Your task to perform on an android device: set an alarm Image 0: 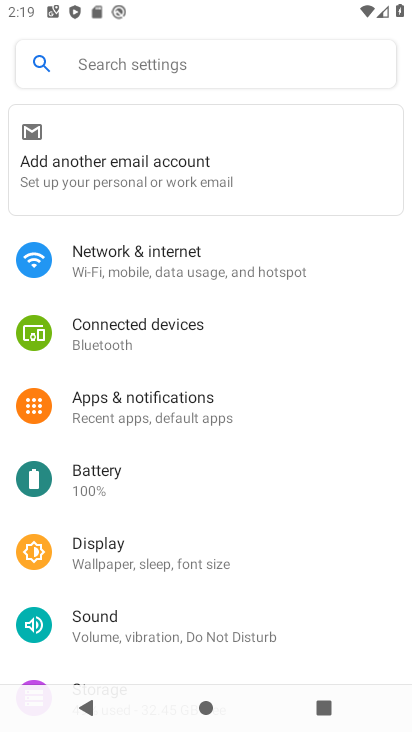
Step 0: press home button
Your task to perform on an android device: set an alarm Image 1: 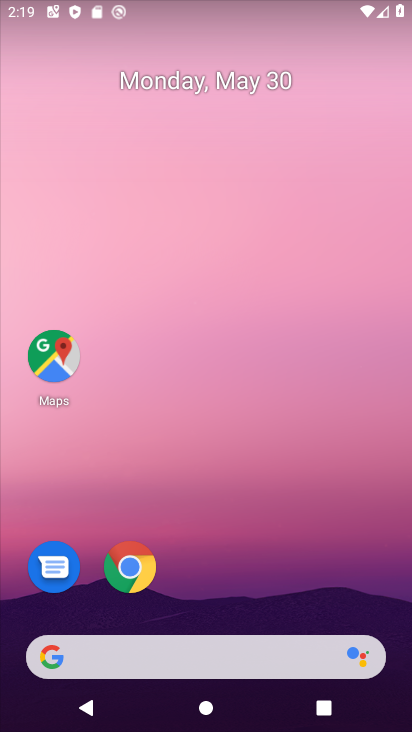
Step 1: drag from (214, 402) to (249, 142)
Your task to perform on an android device: set an alarm Image 2: 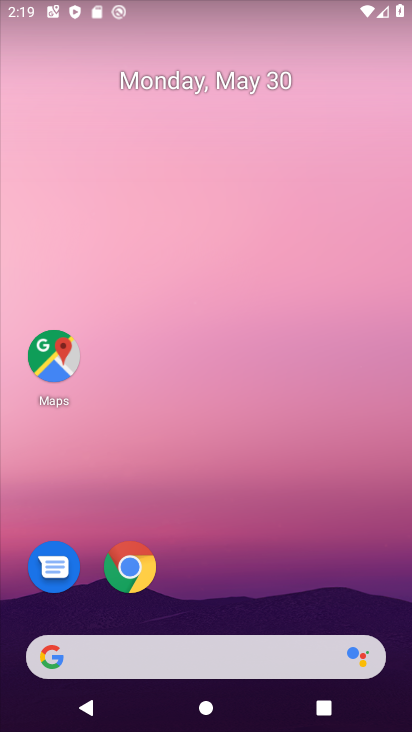
Step 2: drag from (229, 622) to (251, 13)
Your task to perform on an android device: set an alarm Image 3: 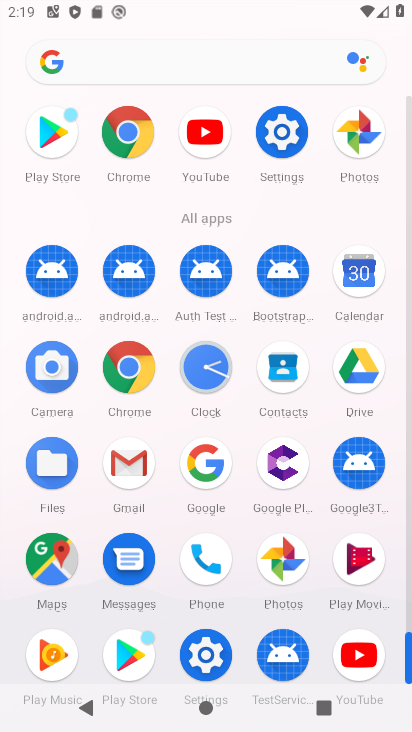
Step 3: click (210, 369)
Your task to perform on an android device: set an alarm Image 4: 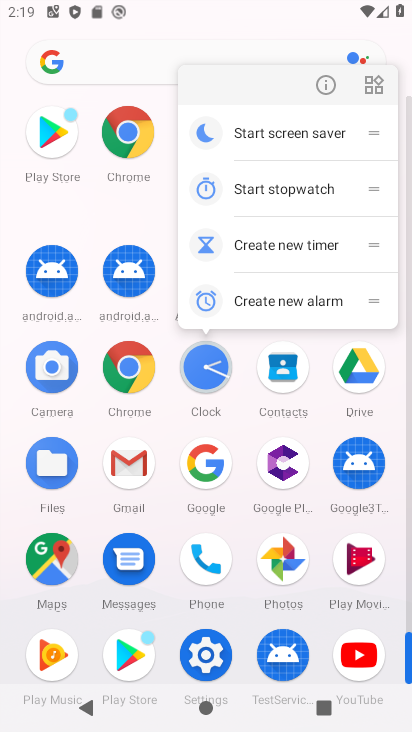
Step 4: click (194, 377)
Your task to perform on an android device: set an alarm Image 5: 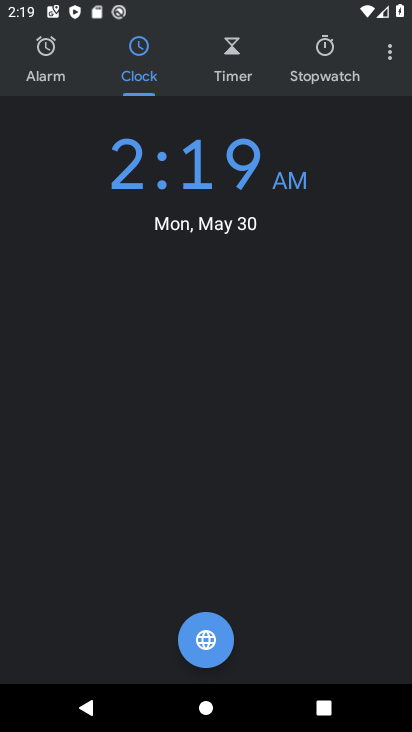
Step 5: click (57, 70)
Your task to perform on an android device: set an alarm Image 6: 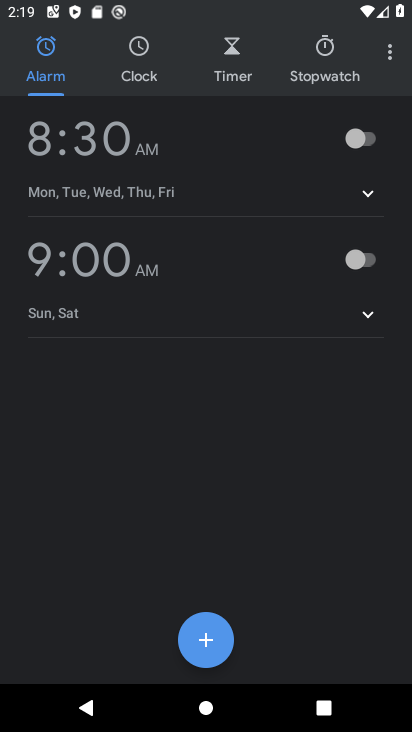
Step 6: click (383, 132)
Your task to perform on an android device: set an alarm Image 7: 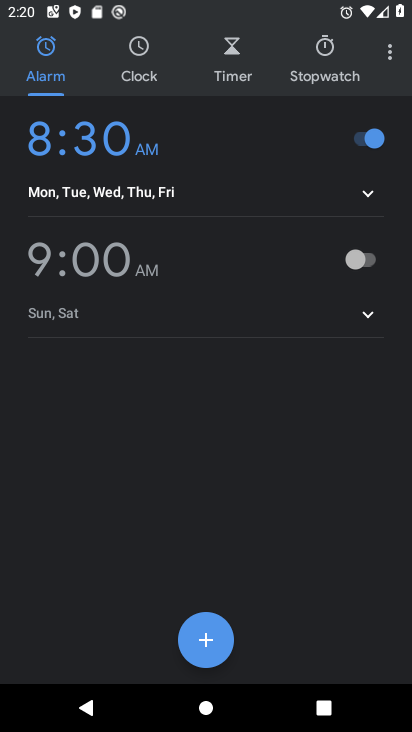
Step 7: task complete